Your task to perform on an android device: Go to settings Image 0: 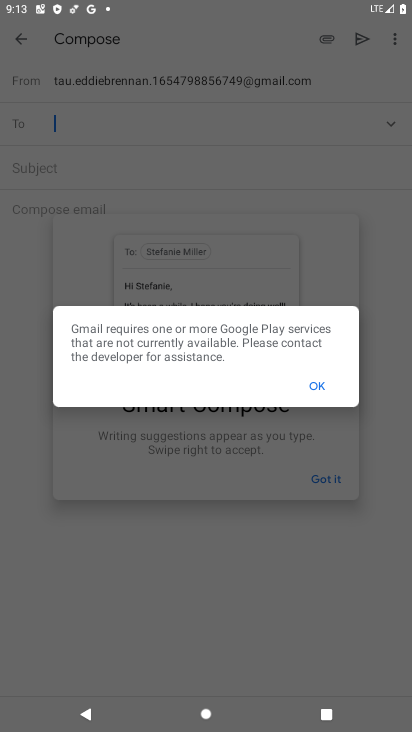
Step 0: press home button
Your task to perform on an android device: Go to settings Image 1: 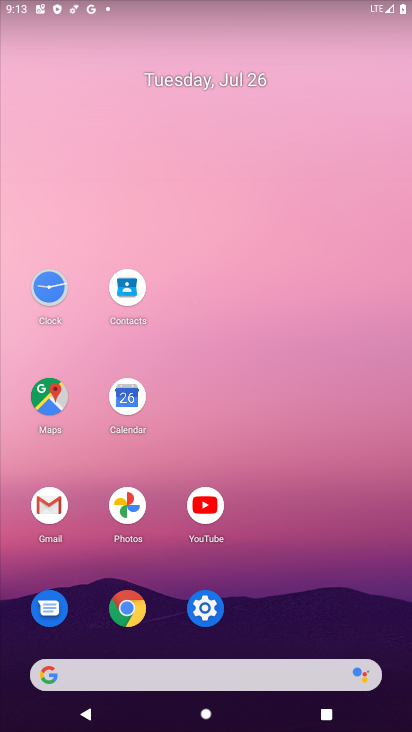
Step 1: click (202, 614)
Your task to perform on an android device: Go to settings Image 2: 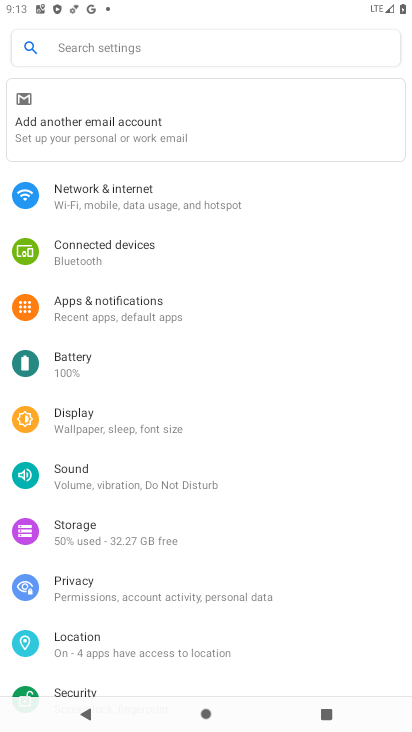
Step 2: task complete